Your task to perform on an android device: What is the recent news? Image 0: 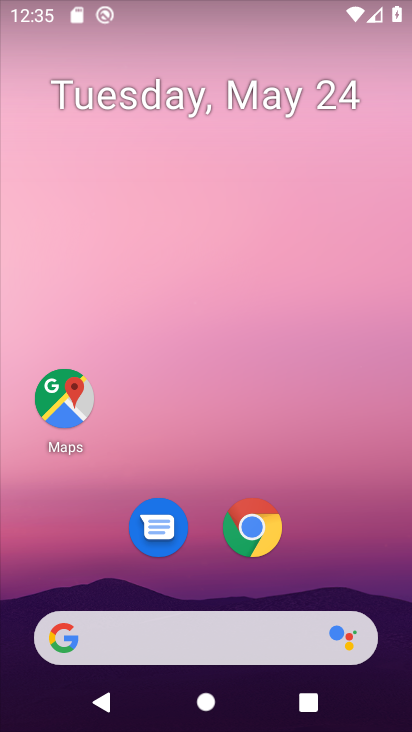
Step 0: click (189, 644)
Your task to perform on an android device: What is the recent news? Image 1: 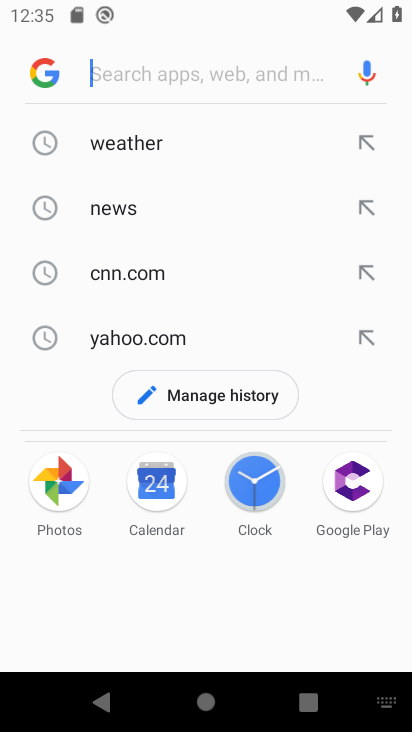
Step 1: click (112, 198)
Your task to perform on an android device: What is the recent news? Image 2: 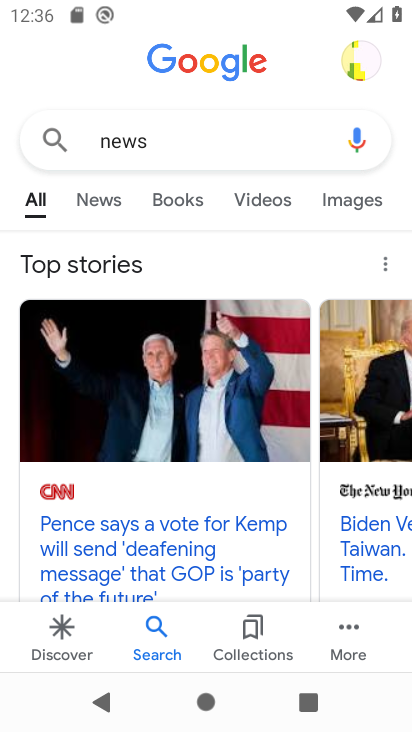
Step 2: task complete